Your task to perform on an android device: Go to battery settings Image 0: 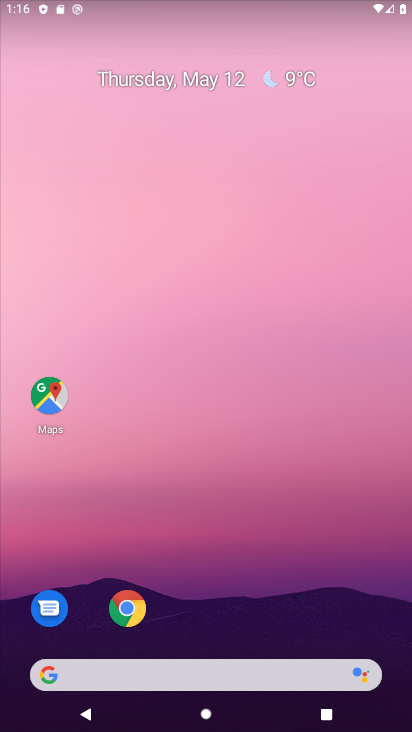
Step 0: drag from (248, 615) to (119, 200)
Your task to perform on an android device: Go to battery settings Image 1: 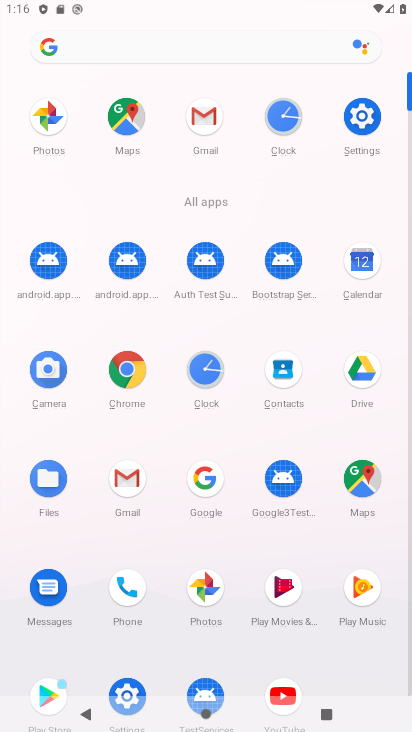
Step 1: click (357, 126)
Your task to perform on an android device: Go to battery settings Image 2: 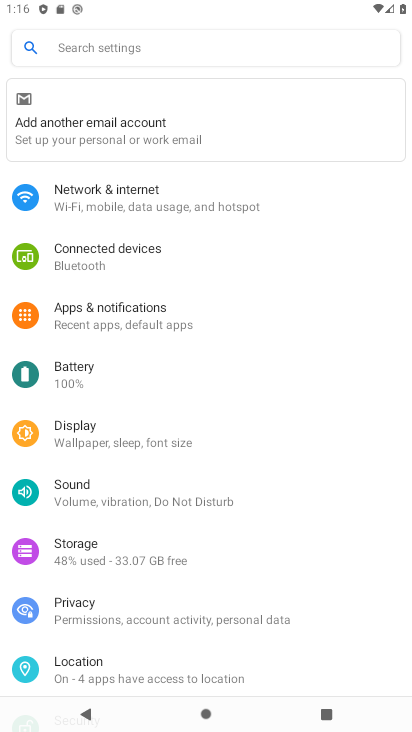
Step 2: click (59, 370)
Your task to perform on an android device: Go to battery settings Image 3: 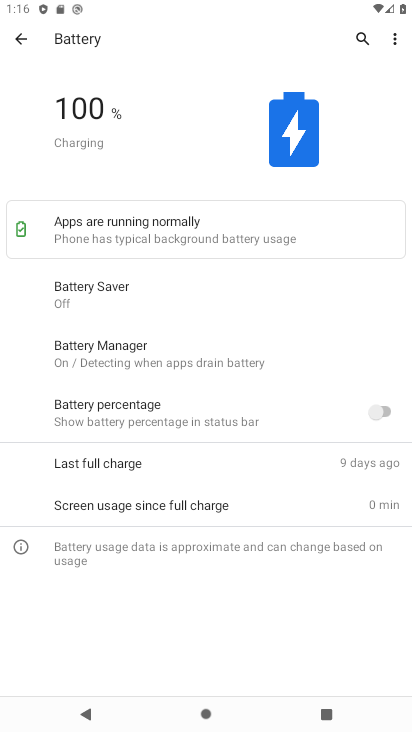
Step 3: task complete